Your task to perform on an android device: open chrome and create a bookmark for the current page Image 0: 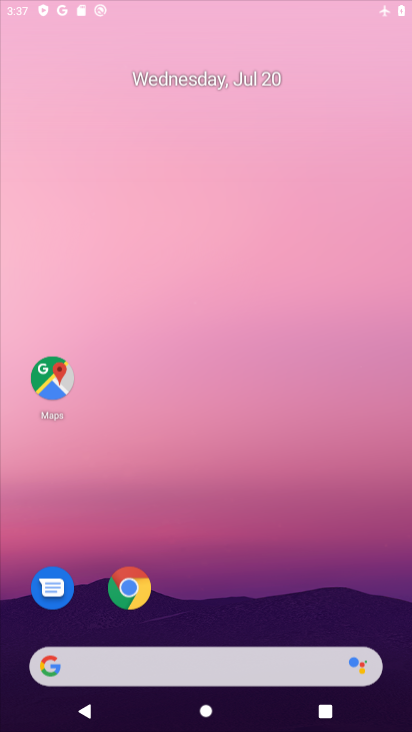
Step 0: drag from (153, 0) to (177, 78)
Your task to perform on an android device: open chrome and create a bookmark for the current page Image 1: 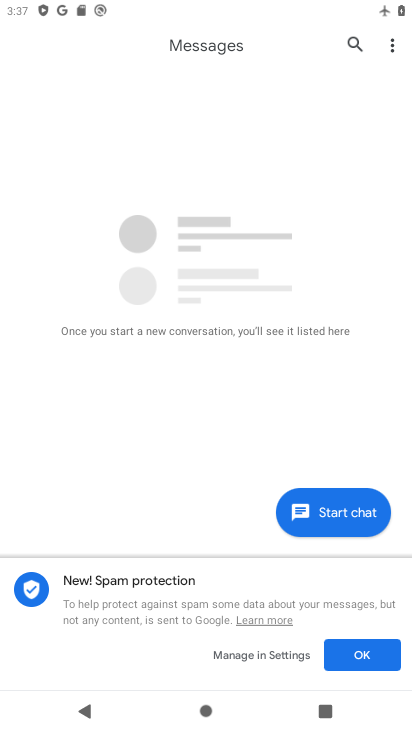
Step 1: press home button
Your task to perform on an android device: open chrome and create a bookmark for the current page Image 2: 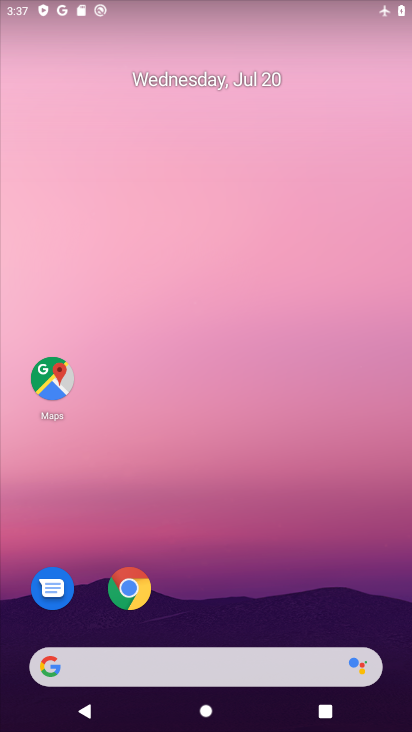
Step 2: click (151, 598)
Your task to perform on an android device: open chrome and create a bookmark for the current page Image 3: 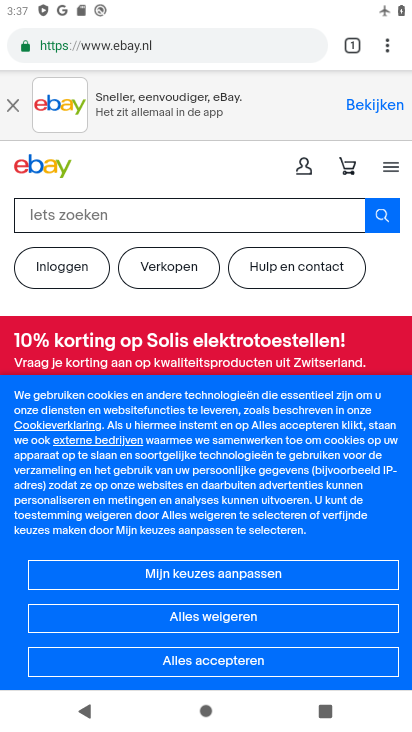
Step 3: click (392, 62)
Your task to perform on an android device: open chrome and create a bookmark for the current page Image 4: 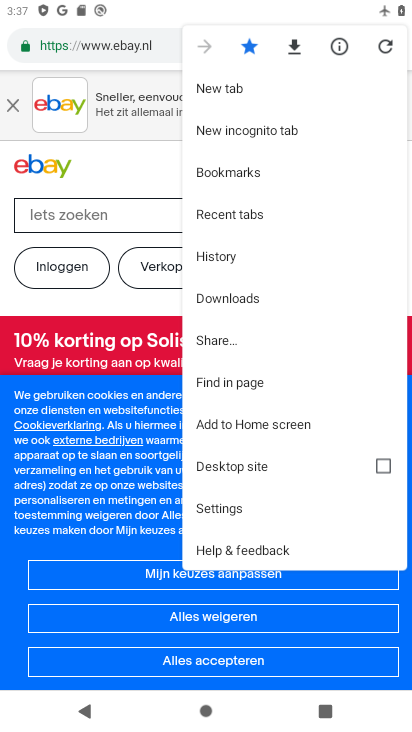
Step 4: task complete